Your task to perform on an android device: Open the calendar app, open the side menu, and click the "Day" option Image 0: 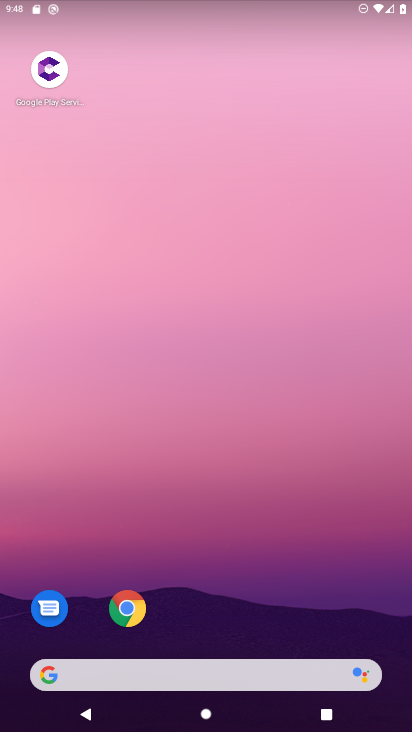
Step 0: drag from (235, 598) to (225, 74)
Your task to perform on an android device: Open the calendar app, open the side menu, and click the "Day" option Image 1: 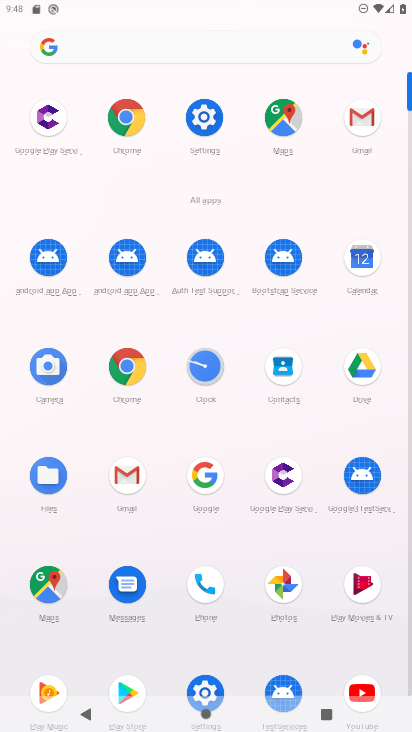
Step 1: click (363, 260)
Your task to perform on an android device: Open the calendar app, open the side menu, and click the "Day" option Image 2: 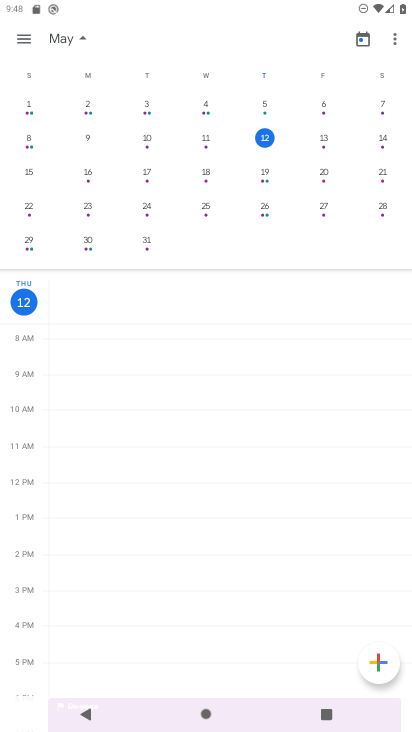
Step 2: click (26, 44)
Your task to perform on an android device: Open the calendar app, open the side menu, and click the "Day" option Image 3: 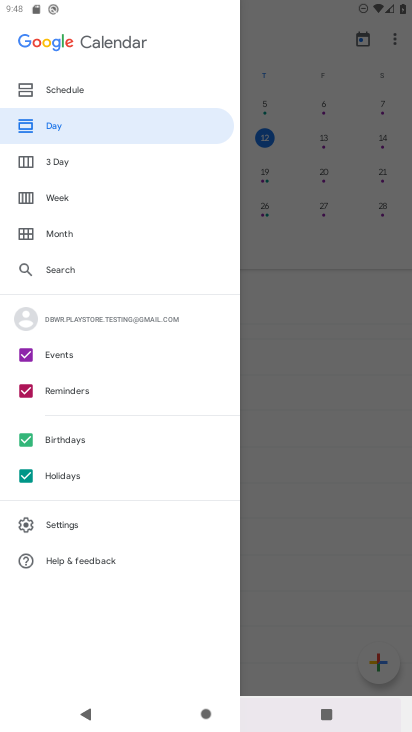
Step 3: click (77, 127)
Your task to perform on an android device: Open the calendar app, open the side menu, and click the "Day" option Image 4: 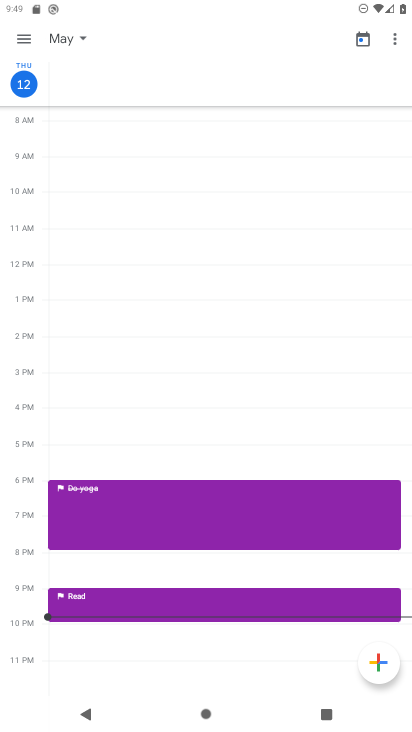
Step 4: task complete